Your task to perform on an android device: Search for sushi restaurants on Maps Image 0: 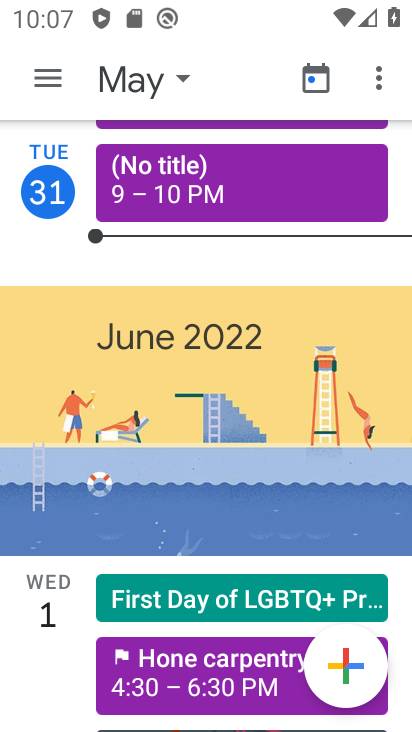
Step 0: press home button
Your task to perform on an android device: Search for sushi restaurants on Maps Image 1: 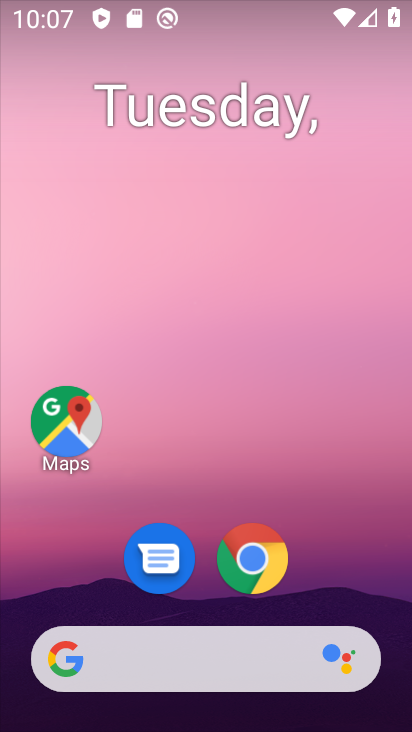
Step 1: click (69, 421)
Your task to perform on an android device: Search for sushi restaurants on Maps Image 2: 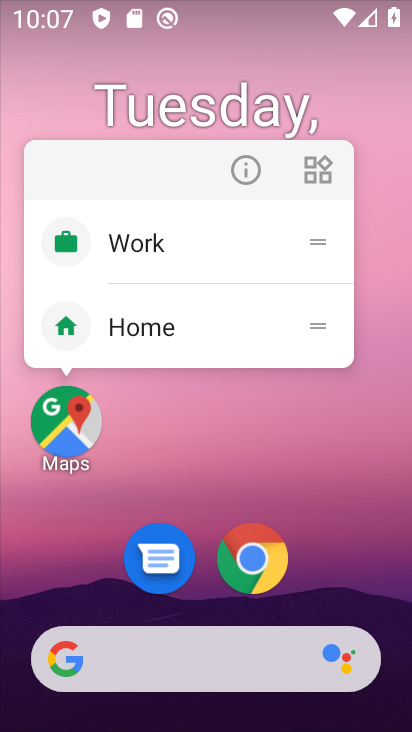
Step 2: click (67, 420)
Your task to perform on an android device: Search for sushi restaurants on Maps Image 3: 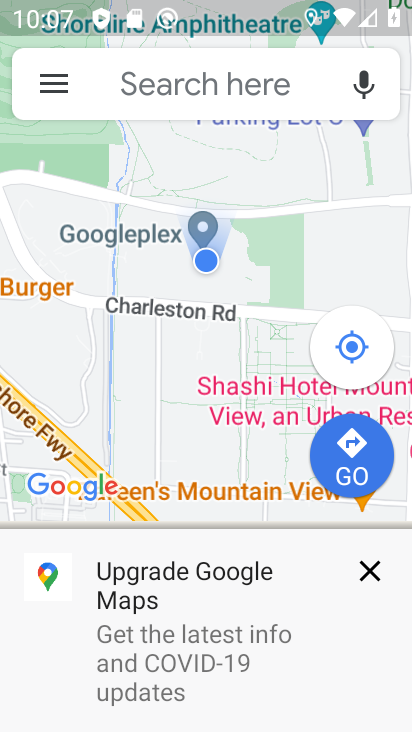
Step 3: click (171, 95)
Your task to perform on an android device: Search for sushi restaurants on Maps Image 4: 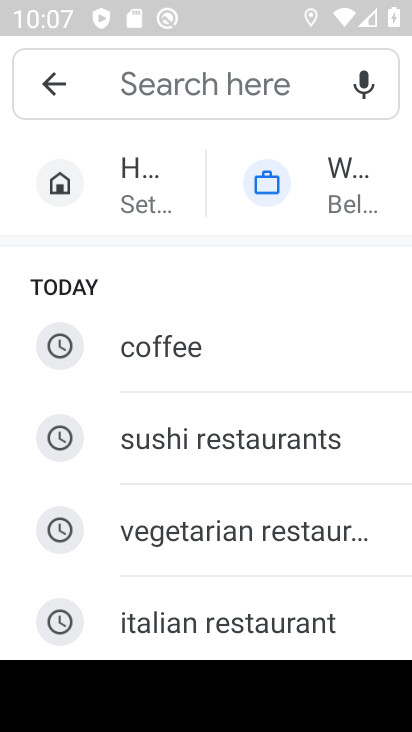
Step 4: type "sushi restaurants"
Your task to perform on an android device: Search for sushi restaurants on Maps Image 5: 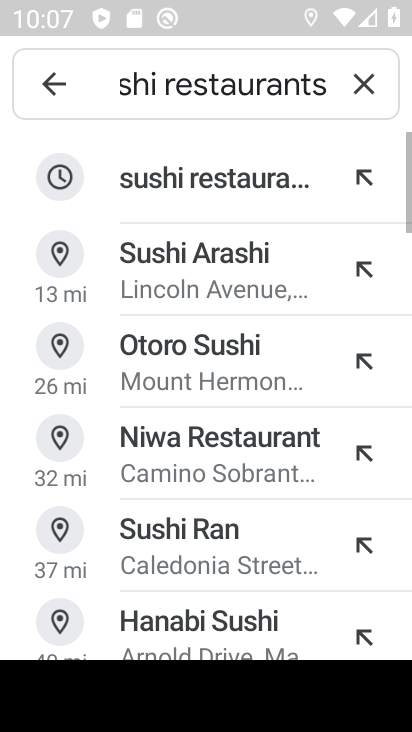
Step 5: click (194, 180)
Your task to perform on an android device: Search for sushi restaurants on Maps Image 6: 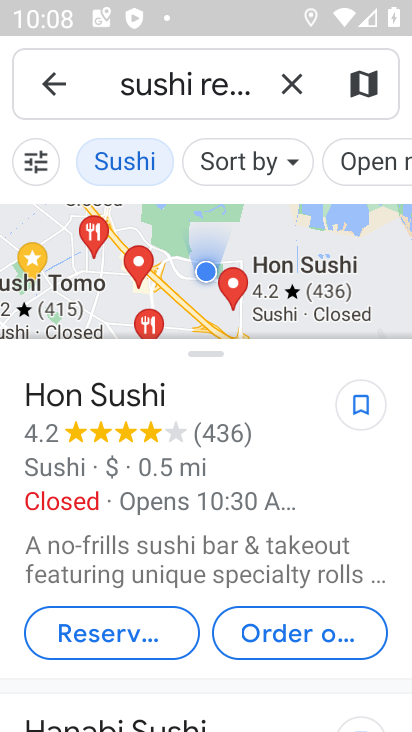
Step 6: task complete